Your task to perform on an android device: Open privacy settings Image 0: 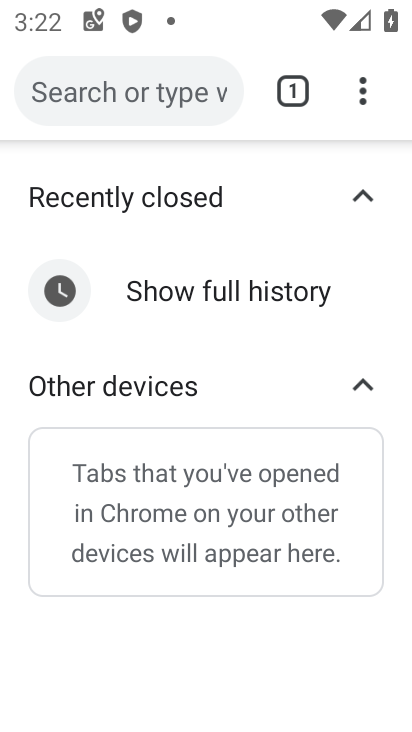
Step 0: press home button
Your task to perform on an android device: Open privacy settings Image 1: 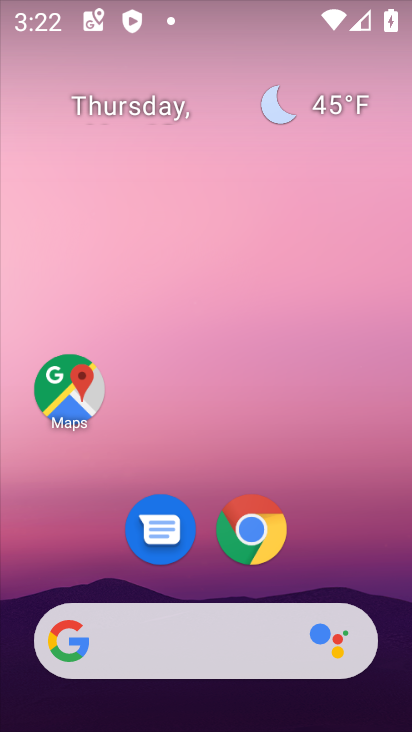
Step 1: drag from (328, 562) to (324, 105)
Your task to perform on an android device: Open privacy settings Image 2: 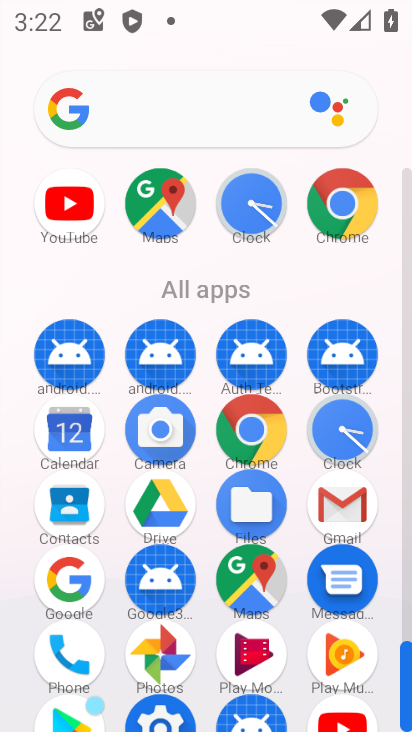
Step 2: drag from (375, 544) to (367, 272)
Your task to perform on an android device: Open privacy settings Image 3: 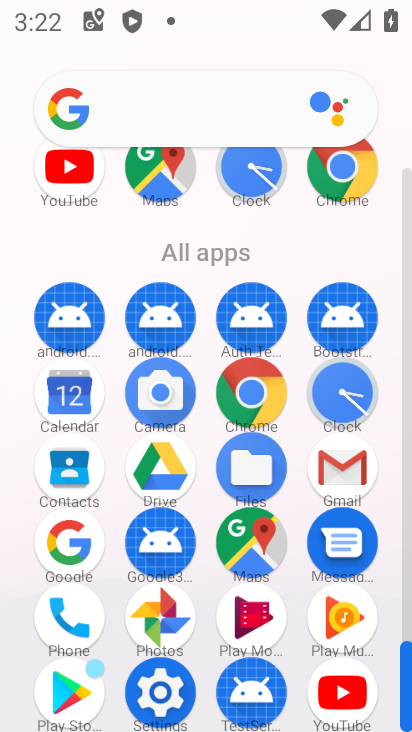
Step 3: click (163, 700)
Your task to perform on an android device: Open privacy settings Image 4: 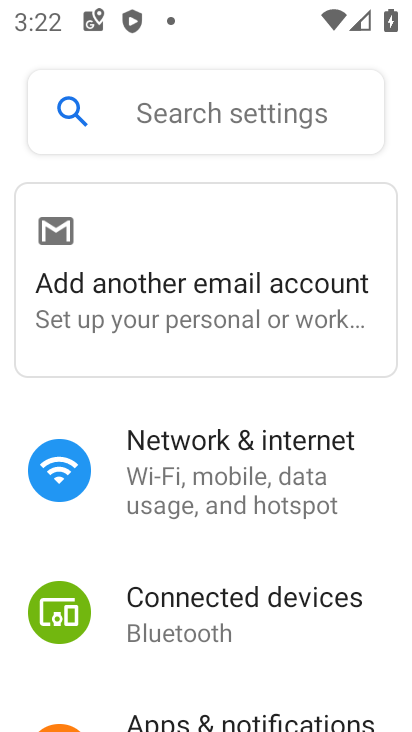
Step 4: drag from (253, 589) to (251, 171)
Your task to perform on an android device: Open privacy settings Image 5: 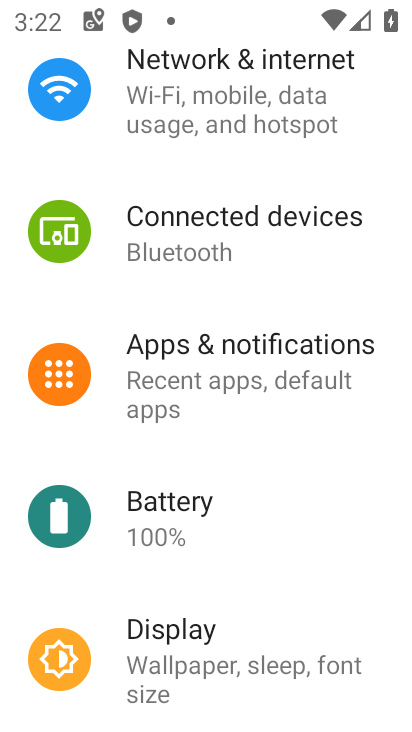
Step 5: drag from (239, 640) to (283, 235)
Your task to perform on an android device: Open privacy settings Image 6: 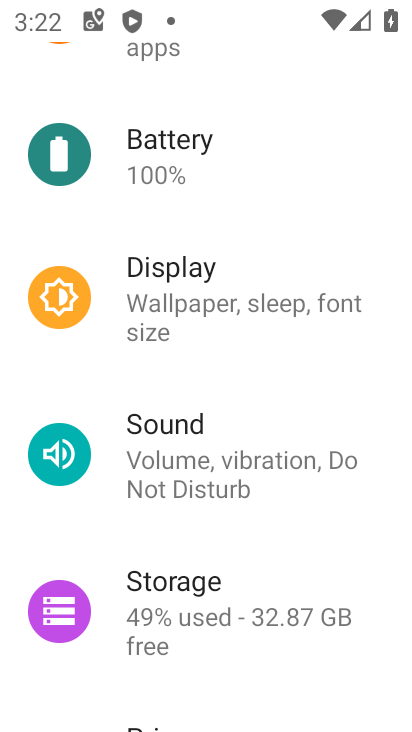
Step 6: drag from (221, 617) to (268, 193)
Your task to perform on an android device: Open privacy settings Image 7: 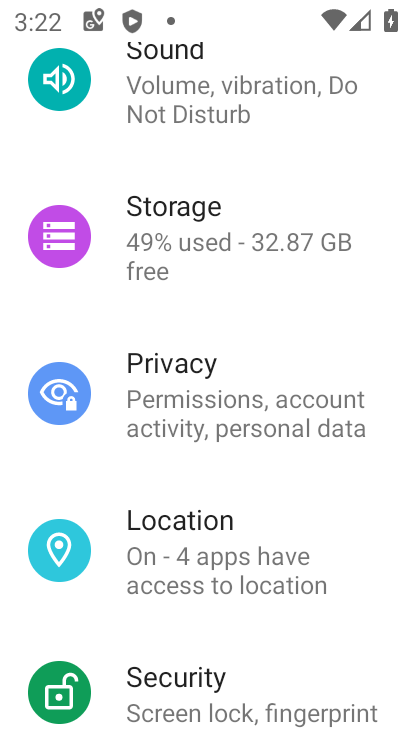
Step 7: click (198, 389)
Your task to perform on an android device: Open privacy settings Image 8: 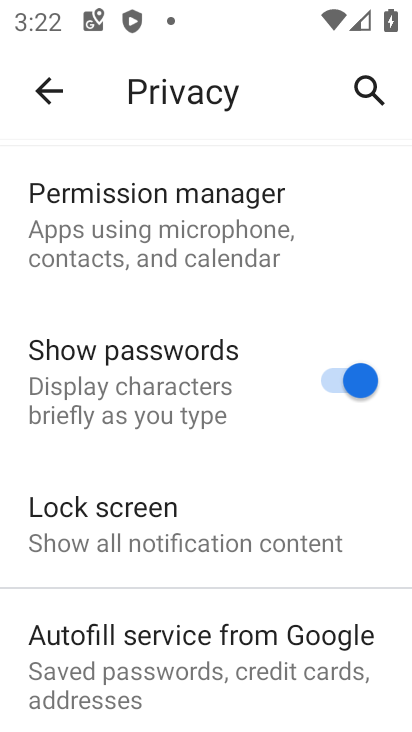
Step 8: task complete